Your task to perform on an android device: Show me popular videos on Youtube Image 0: 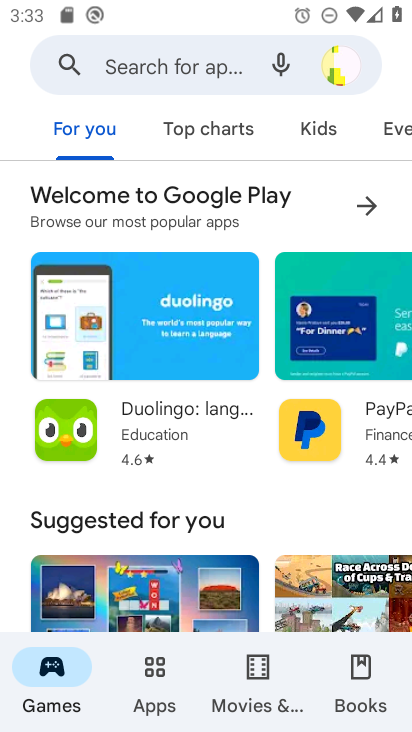
Step 0: press back button
Your task to perform on an android device: Show me popular videos on Youtube Image 1: 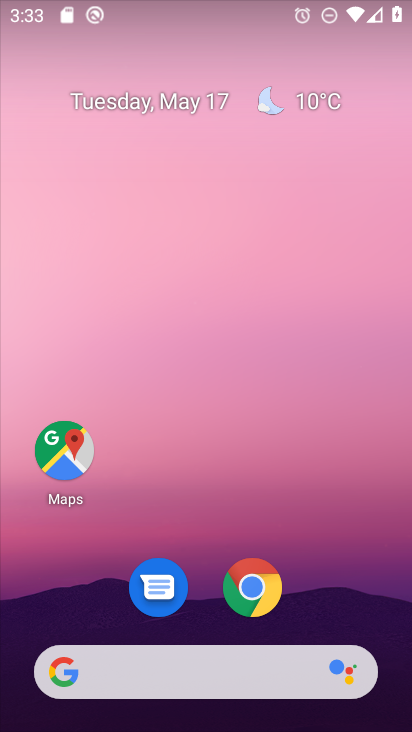
Step 1: drag from (295, 585) to (257, 30)
Your task to perform on an android device: Show me popular videos on Youtube Image 2: 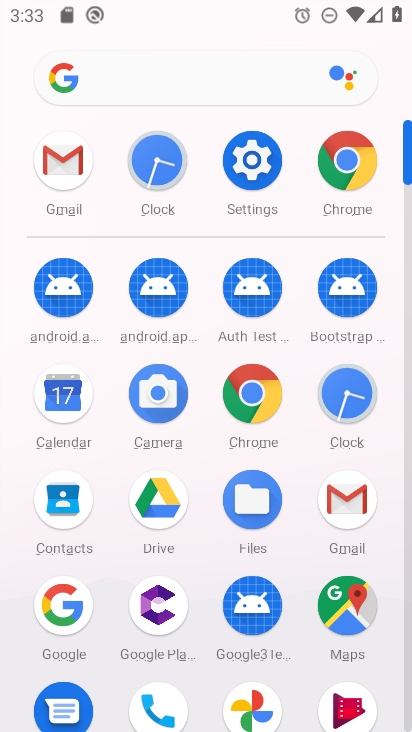
Step 2: drag from (3, 519) to (24, 212)
Your task to perform on an android device: Show me popular videos on Youtube Image 3: 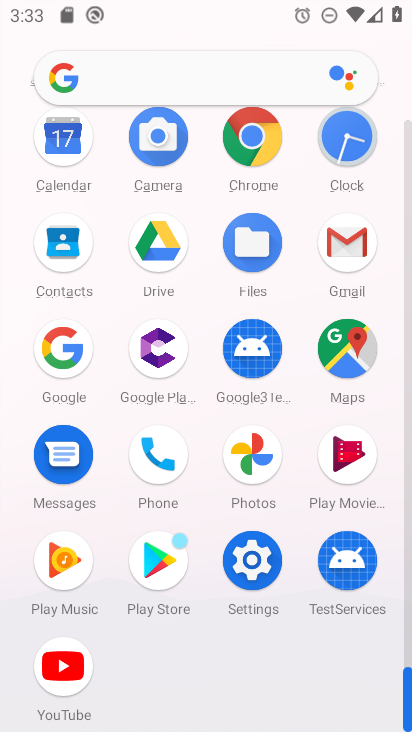
Step 3: click (60, 663)
Your task to perform on an android device: Show me popular videos on Youtube Image 4: 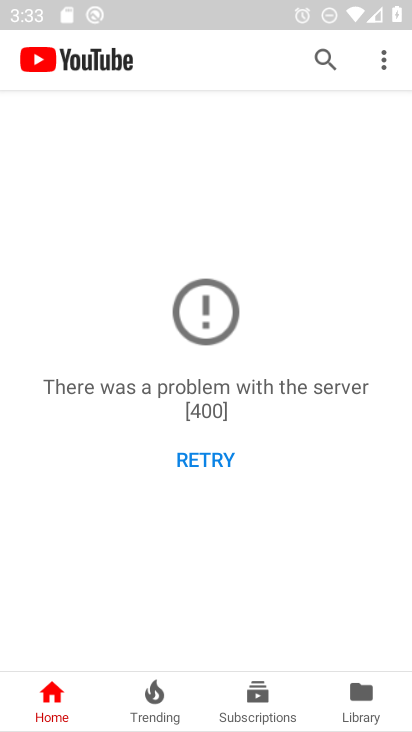
Step 4: click (361, 700)
Your task to perform on an android device: Show me popular videos on Youtube Image 5: 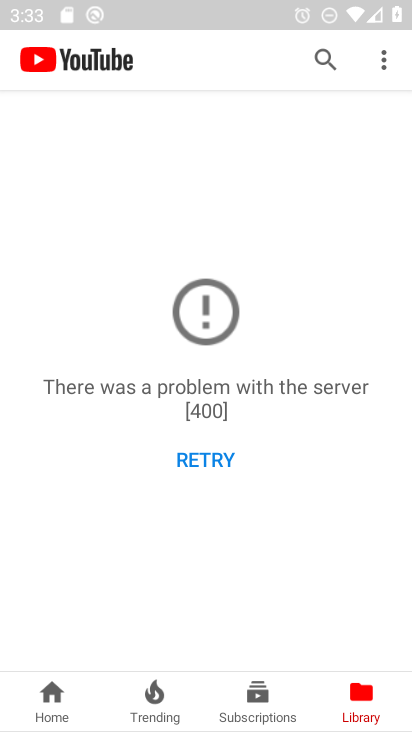
Step 5: task complete